Your task to perform on an android device: What's the weather today? Image 0: 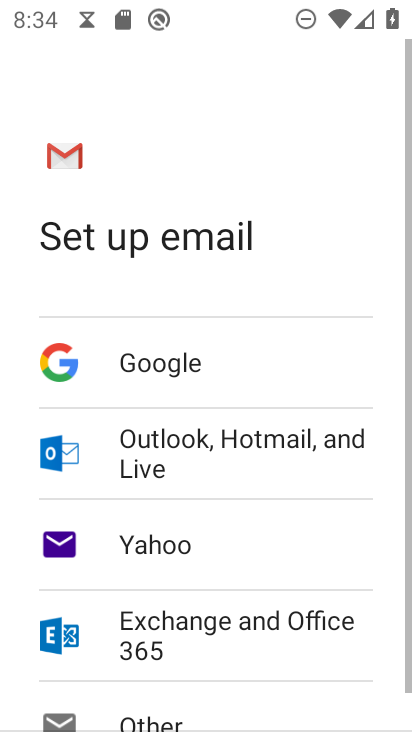
Step 0: press back button
Your task to perform on an android device: What's the weather today? Image 1: 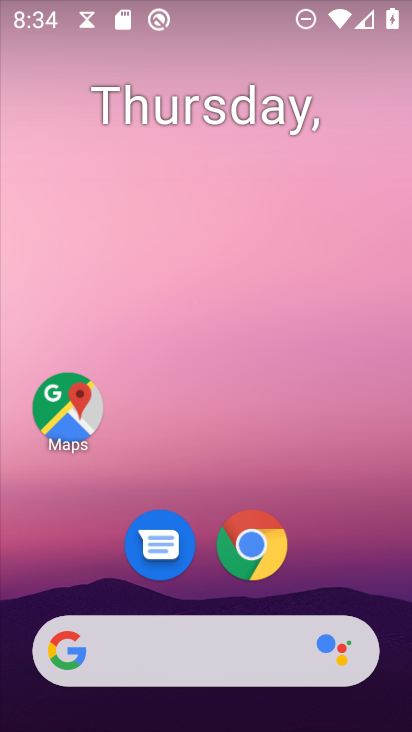
Step 1: drag from (312, 552) to (263, 93)
Your task to perform on an android device: What's the weather today? Image 2: 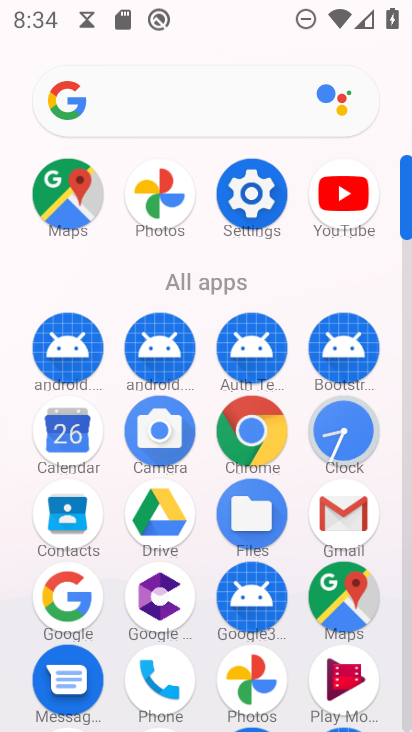
Step 2: drag from (204, 544) to (214, 344)
Your task to perform on an android device: What's the weather today? Image 3: 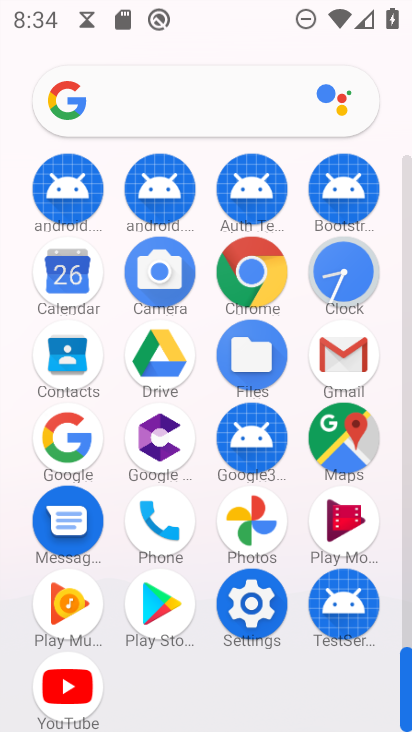
Step 3: click (63, 433)
Your task to perform on an android device: What's the weather today? Image 4: 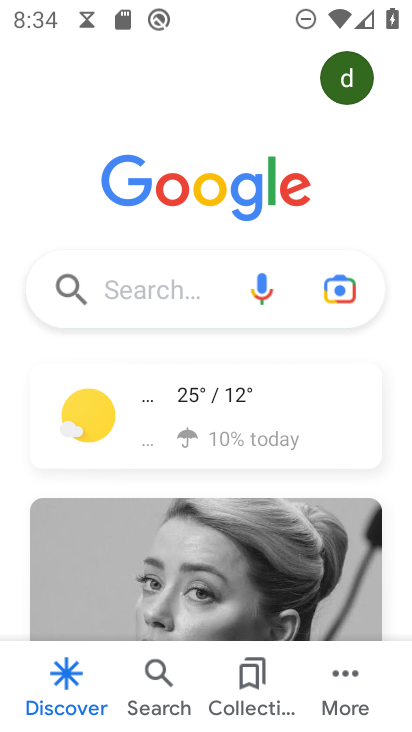
Step 4: click (165, 422)
Your task to perform on an android device: What's the weather today? Image 5: 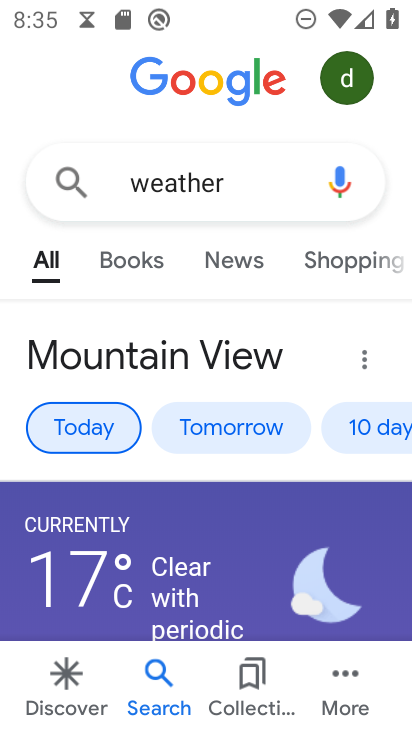
Step 5: task complete